Your task to perform on an android device: Open Android settings Image 0: 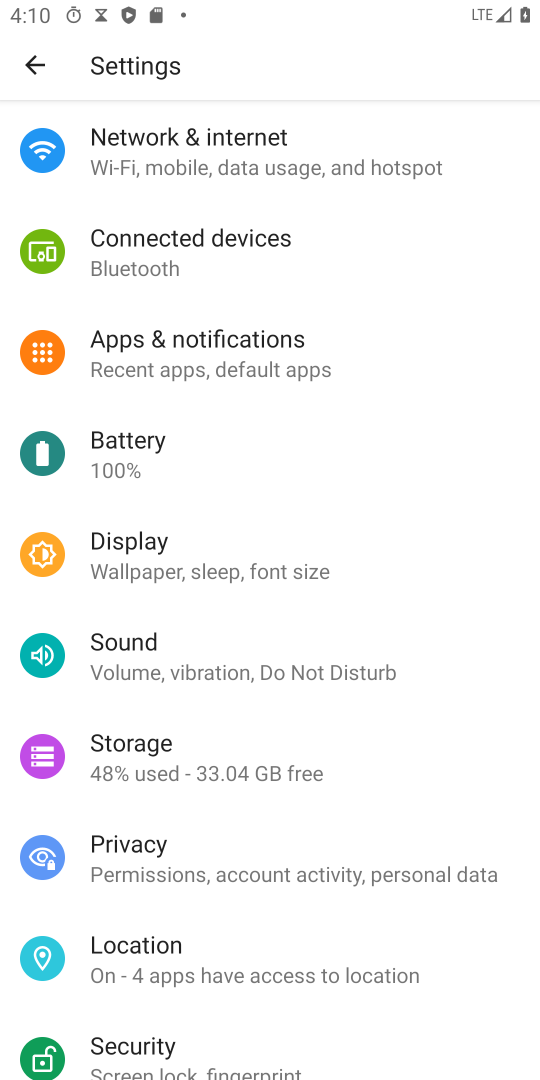
Step 0: drag from (302, 1034) to (273, 246)
Your task to perform on an android device: Open Android settings Image 1: 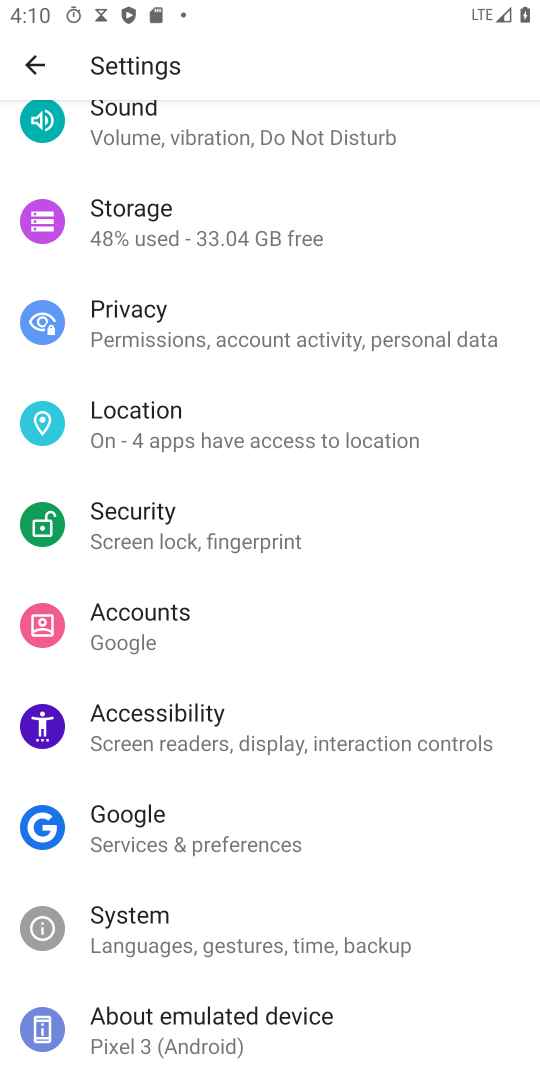
Step 1: click (208, 1029)
Your task to perform on an android device: Open Android settings Image 2: 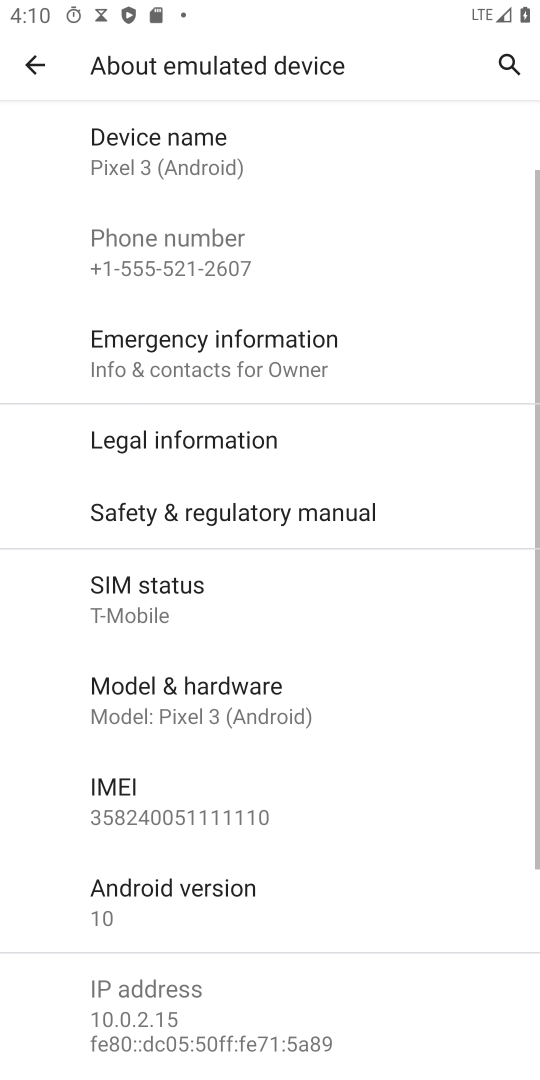
Step 2: click (148, 894)
Your task to perform on an android device: Open Android settings Image 3: 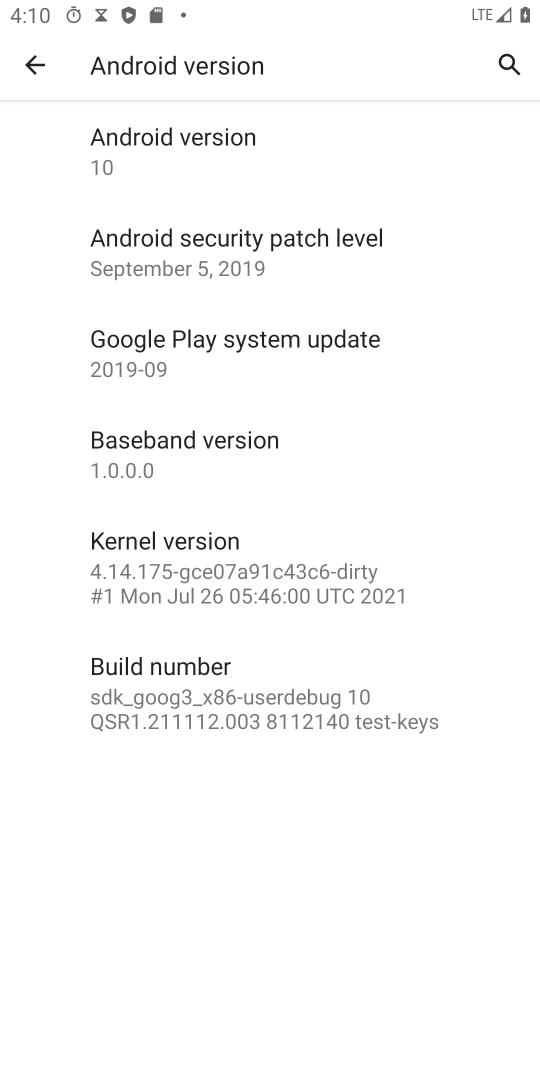
Step 3: task complete